Your task to perform on an android device: Search for Mexican restaurants on Maps Image 0: 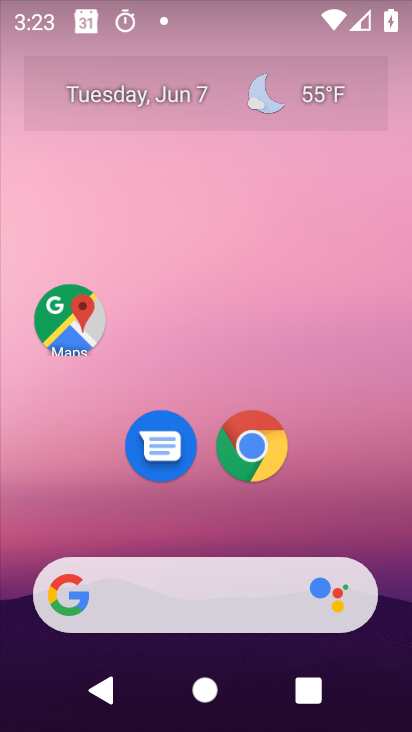
Step 0: click (70, 323)
Your task to perform on an android device: Search for Mexican restaurants on Maps Image 1: 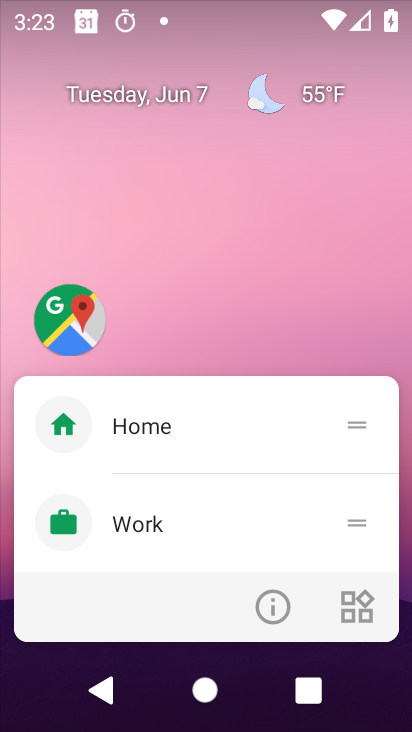
Step 1: click (69, 305)
Your task to perform on an android device: Search for Mexican restaurants on Maps Image 2: 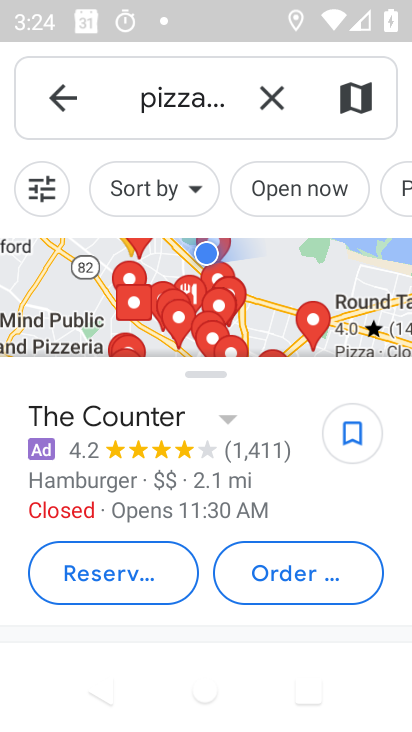
Step 2: click (177, 101)
Your task to perform on an android device: Search for Mexican restaurants on Maps Image 3: 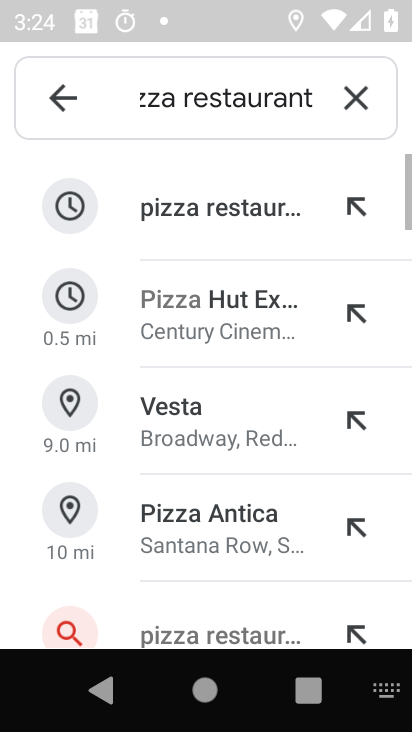
Step 3: click (177, 101)
Your task to perform on an android device: Search for Mexican restaurants on Maps Image 4: 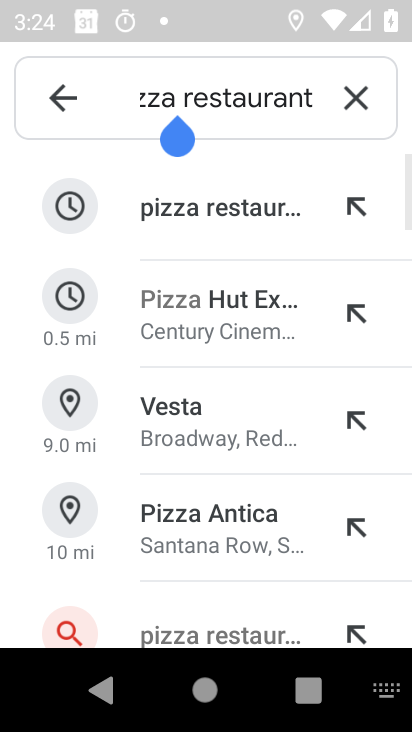
Step 4: click (153, 99)
Your task to perform on an android device: Search for Mexican restaurants on Maps Image 5: 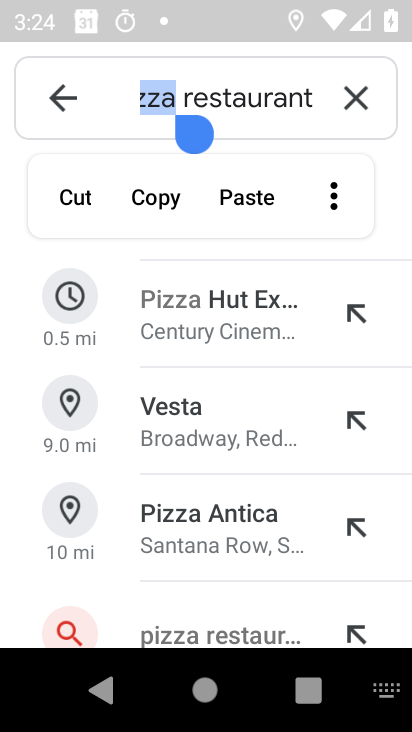
Step 5: type "mexican"
Your task to perform on an android device: Search for Mexican restaurants on Maps Image 6: 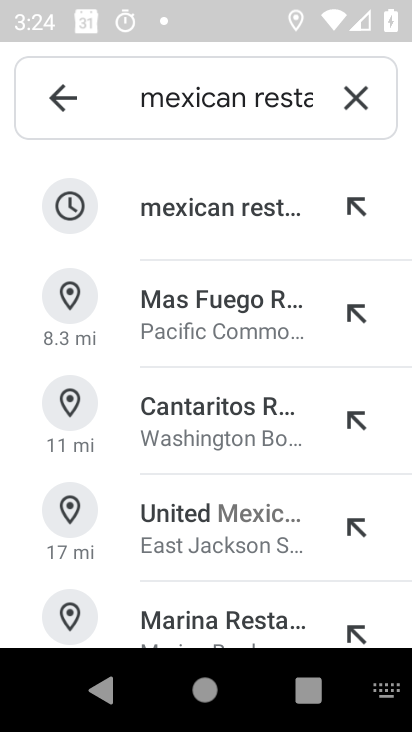
Step 6: click (216, 241)
Your task to perform on an android device: Search for Mexican restaurants on Maps Image 7: 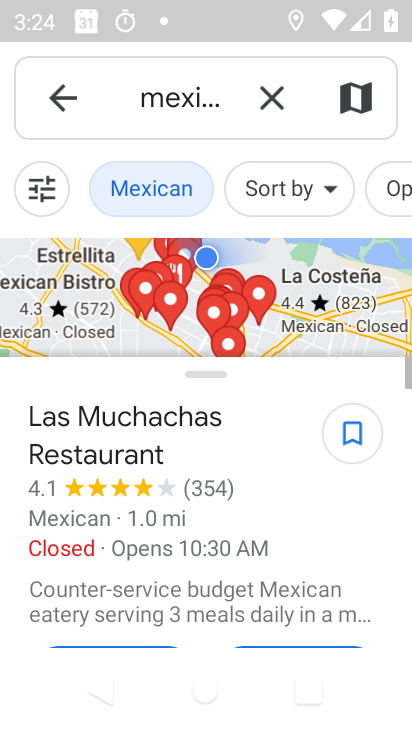
Step 7: task complete